Your task to perform on an android device: Open Google Chrome and open the bookmarks view Image 0: 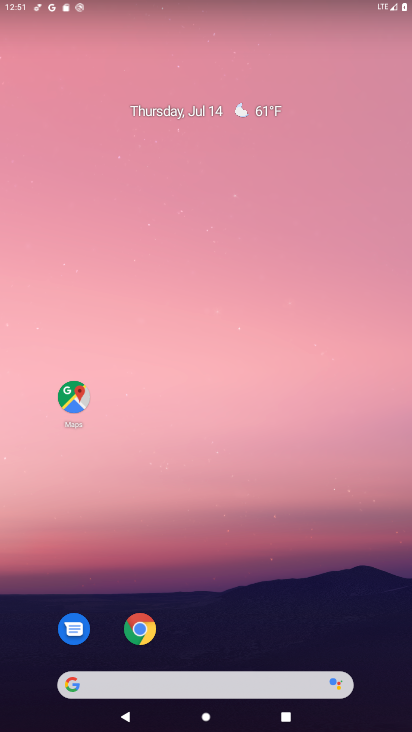
Step 0: drag from (299, 108) to (292, 42)
Your task to perform on an android device: Open Google Chrome and open the bookmarks view Image 1: 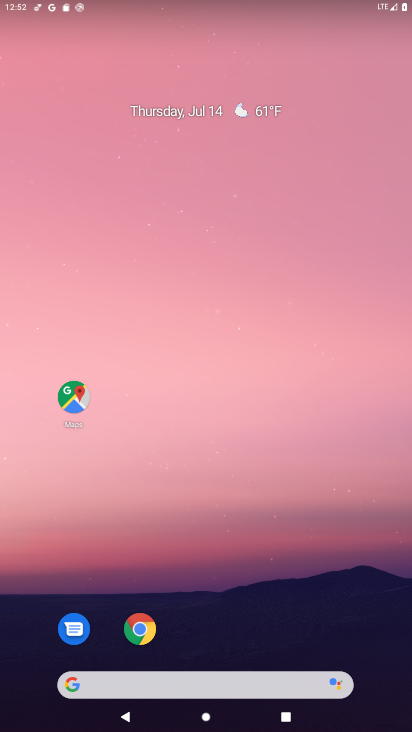
Step 1: drag from (258, 247) to (189, 20)
Your task to perform on an android device: Open Google Chrome and open the bookmarks view Image 2: 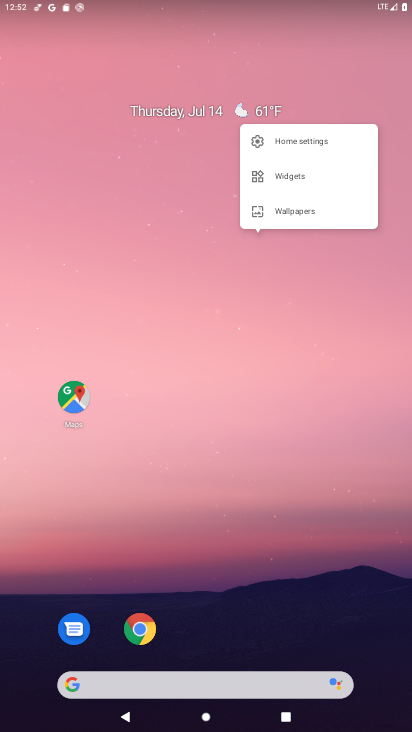
Step 2: drag from (207, 401) to (159, 45)
Your task to perform on an android device: Open Google Chrome and open the bookmarks view Image 3: 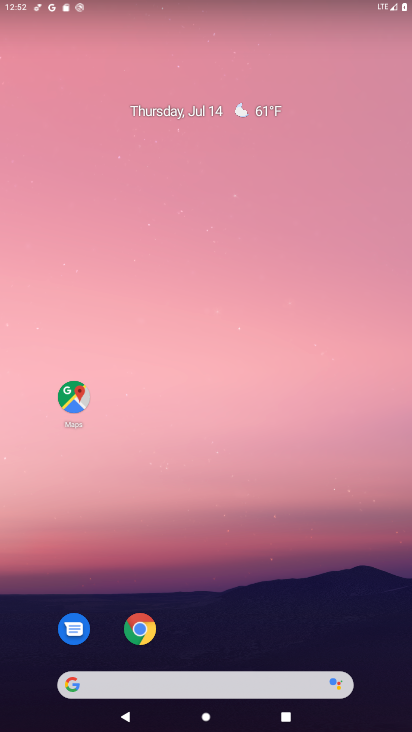
Step 3: click (175, 413)
Your task to perform on an android device: Open Google Chrome and open the bookmarks view Image 4: 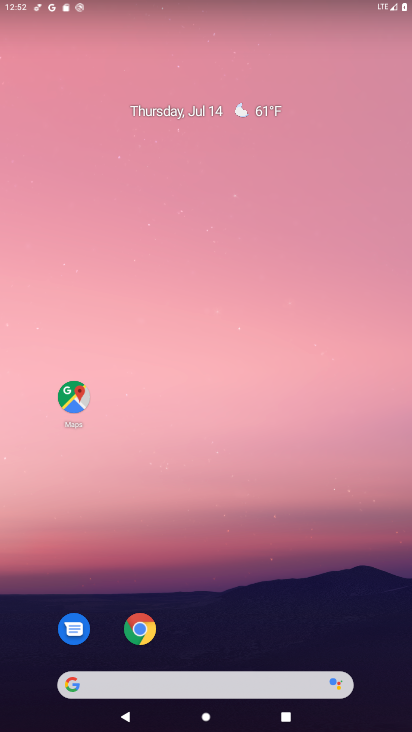
Step 4: drag from (278, 345) to (289, 102)
Your task to perform on an android device: Open Google Chrome and open the bookmarks view Image 5: 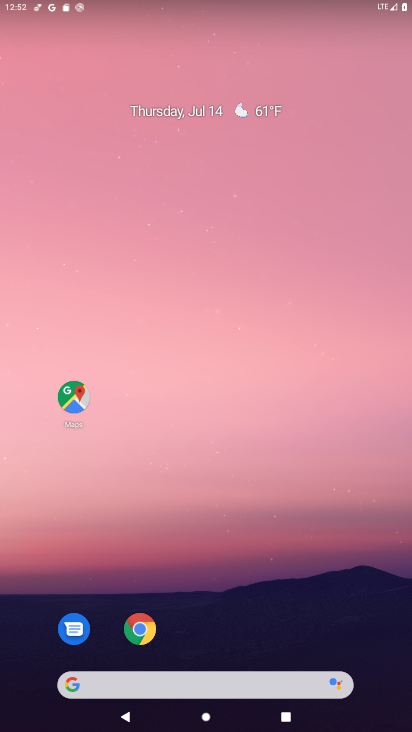
Step 5: drag from (324, 623) to (261, 13)
Your task to perform on an android device: Open Google Chrome and open the bookmarks view Image 6: 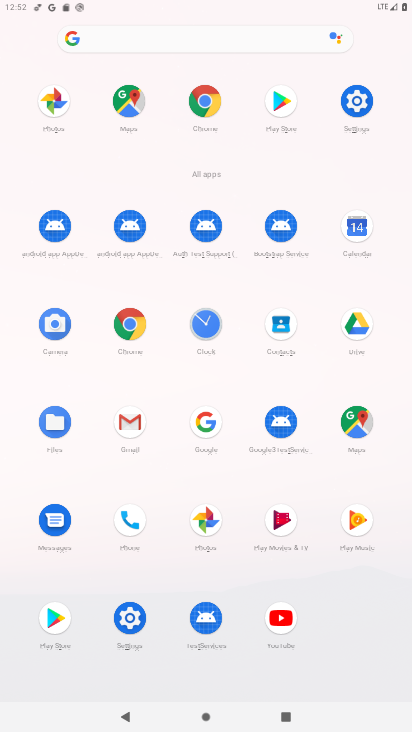
Step 6: click (193, 107)
Your task to perform on an android device: Open Google Chrome and open the bookmarks view Image 7: 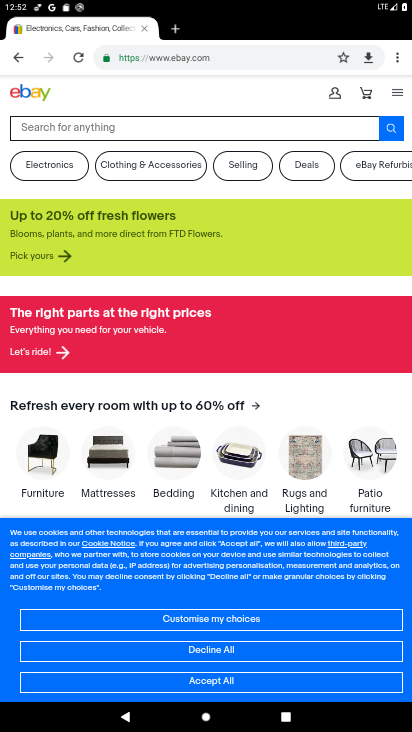
Step 7: task complete